Your task to perform on an android device: Go to display settings Image 0: 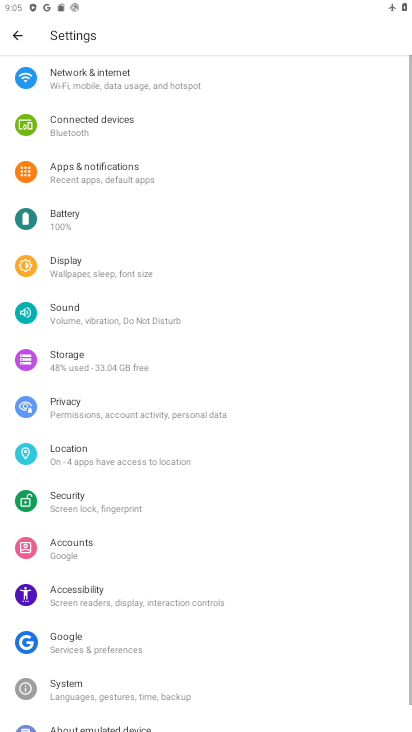
Step 0: click (82, 258)
Your task to perform on an android device: Go to display settings Image 1: 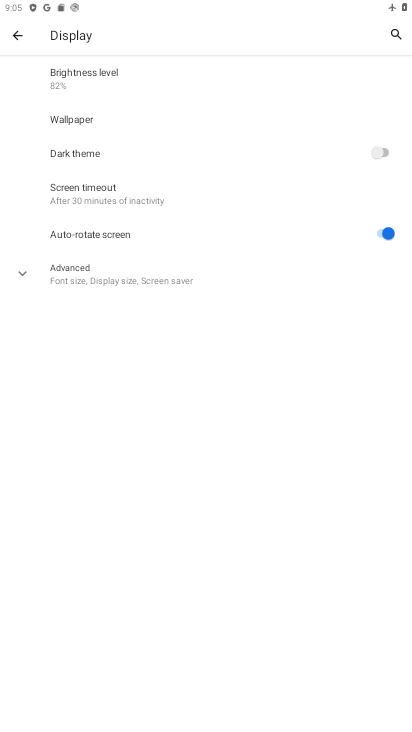
Step 1: click (20, 271)
Your task to perform on an android device: Go to display settings Image 2: 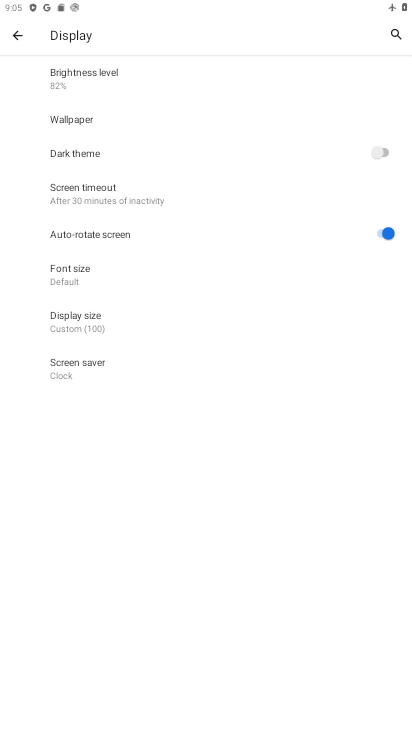
Step 2: task complete